Your task to perform on an android device: Is it going to rain tomorrow? Image 0: 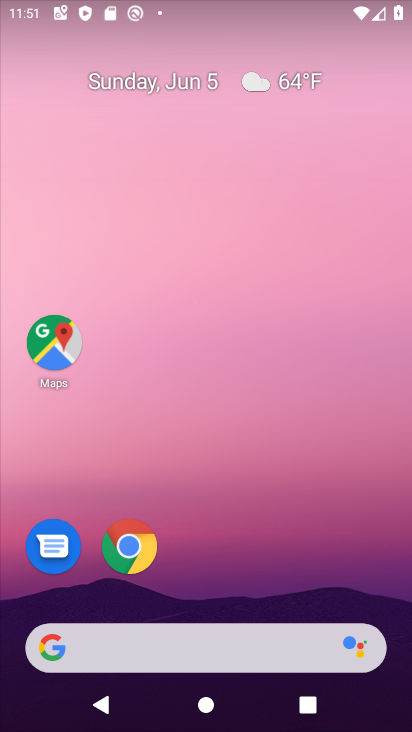
Step 0: click (136, 555)
Your task to perform on an android device: Is it going to rain tomorrow? Image 1: 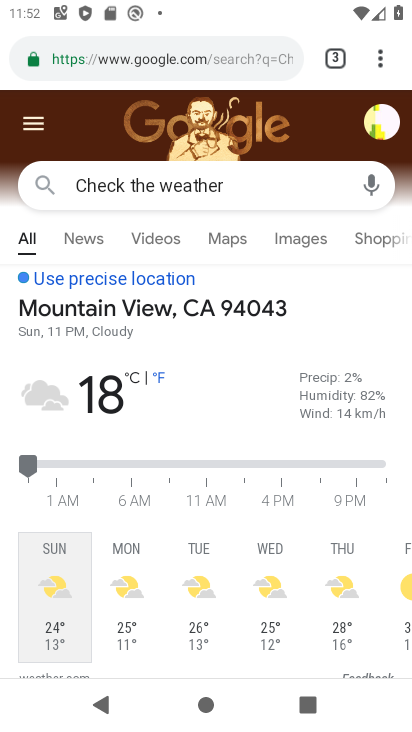
Step 1: click (376, 59)
Your task to perform on an android device: Is it going to rain tomorrow? Image 2: 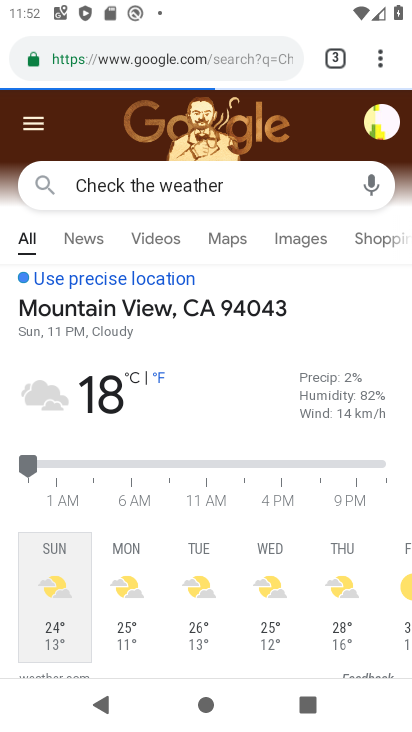
Step 2: click (374, 54)
Your task to perform on an android device: Is it going to rain tomorrow? Image 3: 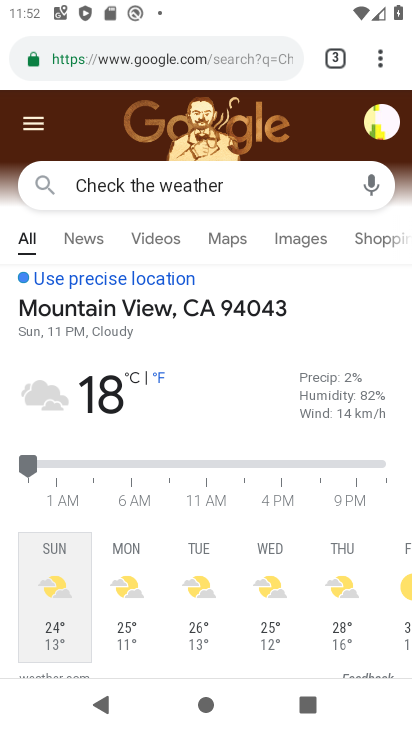
Step 3: click (379, 47)
Your task to perform on an android device: Is it going to rain tomorrow? Image 4: 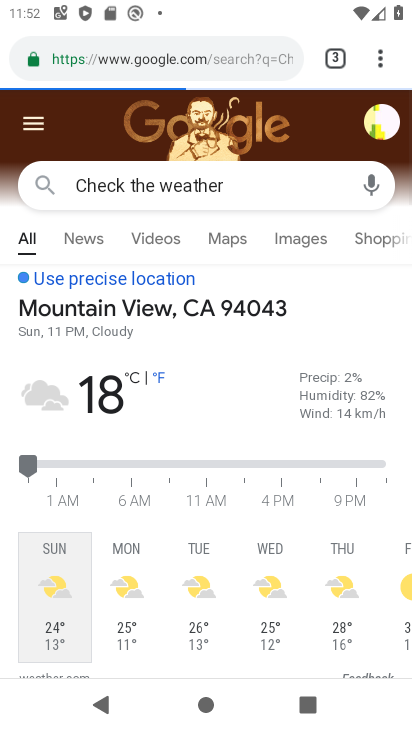
Step 4: click (380, 62)
Your task to perform on an android device: Is it going to rain tomorrow? Image 5: 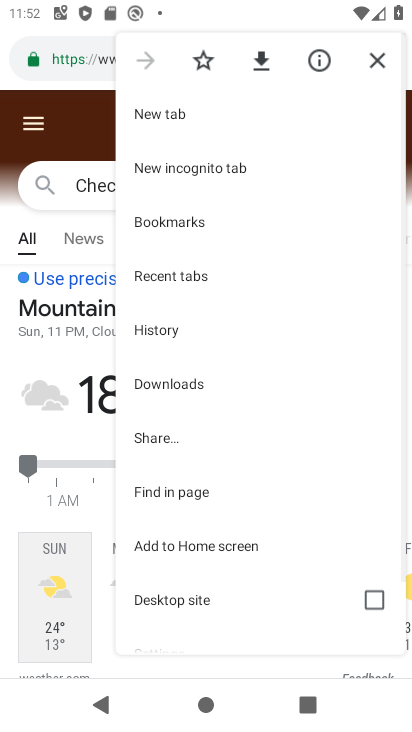
Step 5: drag from (213, 604) to (244, 281)
Your task to perform on an android device: Is it going to rain tomorrow? Image 6: 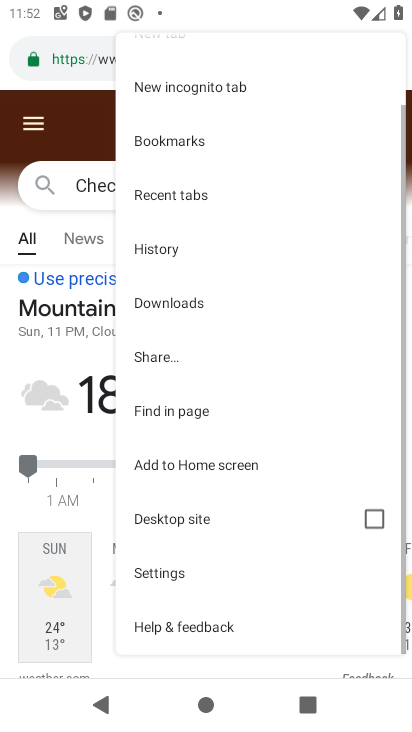
Step 6: click (186, 572)
Your task to perform on an android device: Is it going to rain tomorrow? Image 7: 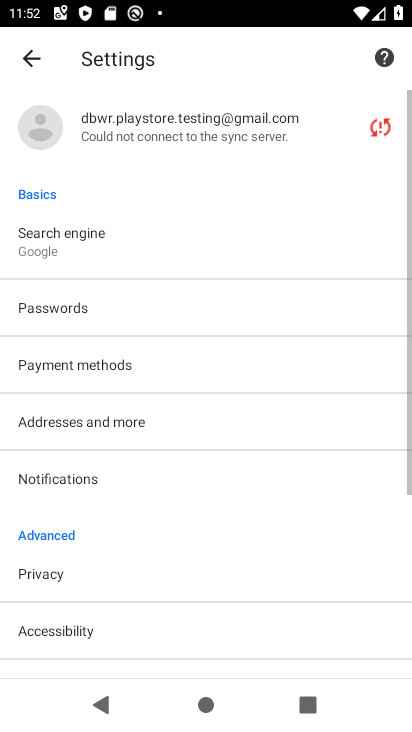
Step 7: click (32, 59)
Your task to perform on an android device: Is it going to rain tomorrow? Image 8: 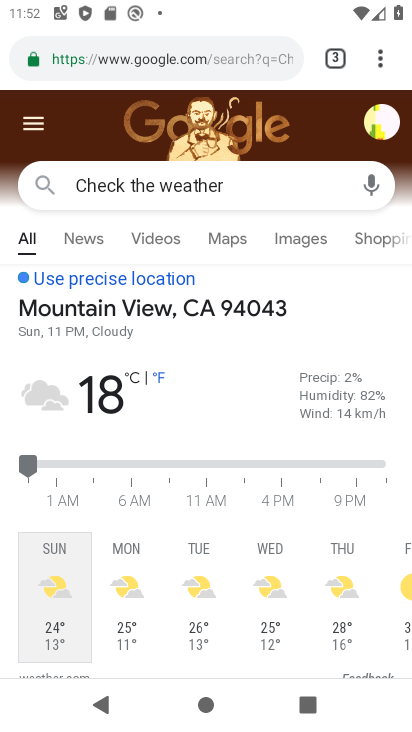
Step 8: click (383, 71)
Your task to perform on an android device: Is it going to rain tomorrow? Image 9: 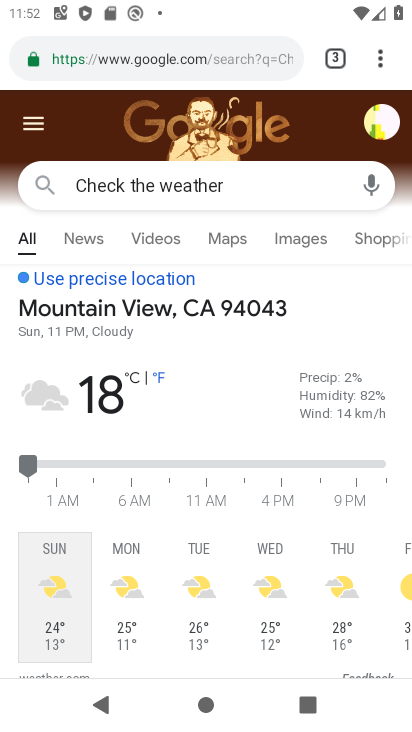
Step 9: click (365, 52)
Your task to perform on an android device: Is it going to rain tomorrow? Image 10: 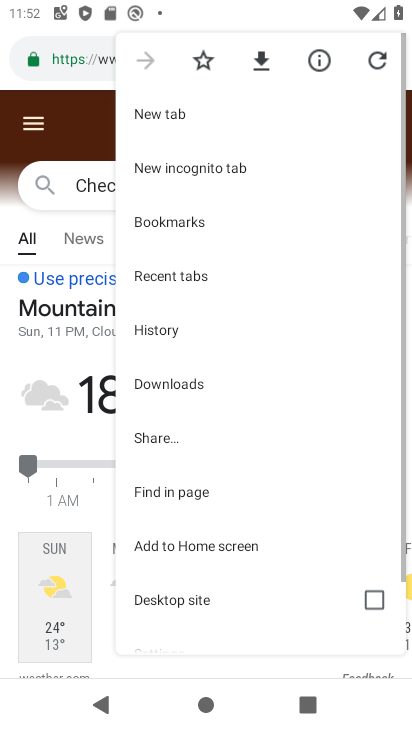
Step 10: click (201, 124)
Your task to perform on an android device: Is it going to rain tomorrow? Image 11: 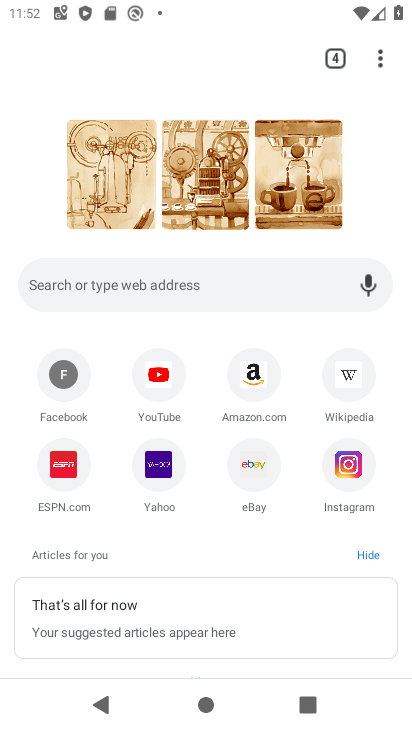
Step 11: click (212, 268)
Your task to perform on an android device: Is it going to rain tomorrow? Image 12: 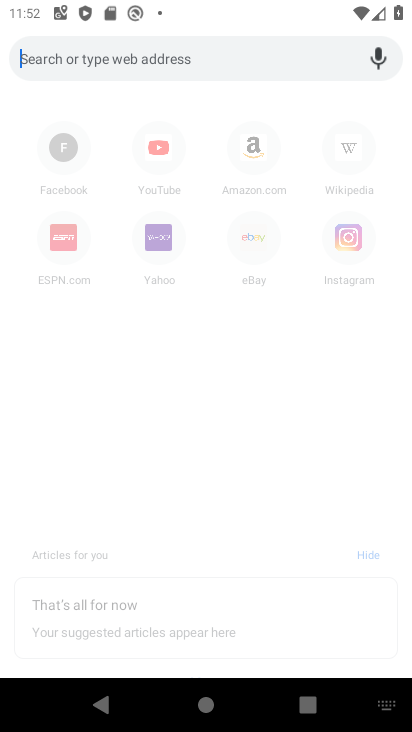
Step 12: type "Is it going to rain tomorrow?"
Your task to perform on an android device: Is it going to rain tomorrow? Image 13: 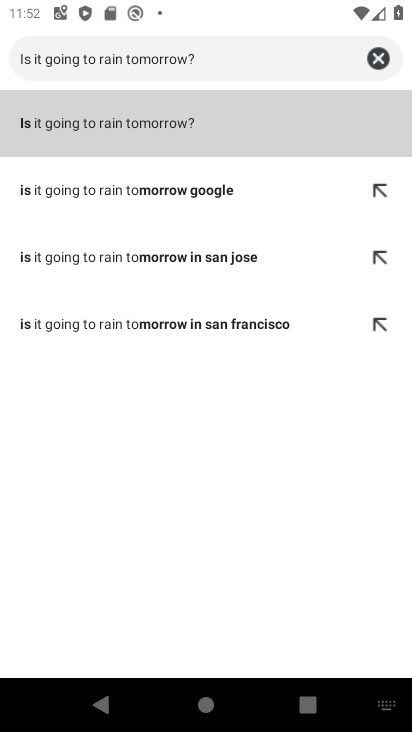
Step 13: click (73, 117)
Your task to perform on an android device: Is it going to rain tomorrow? Image 14: 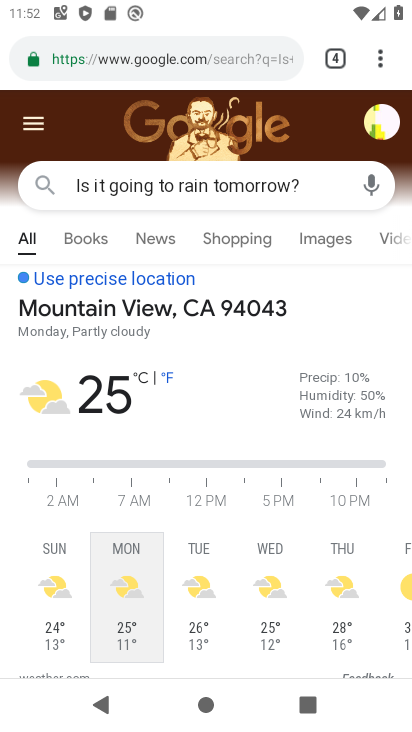
Step 14: task complete